Your task to perform on an android device: Go to eBay Image 0: 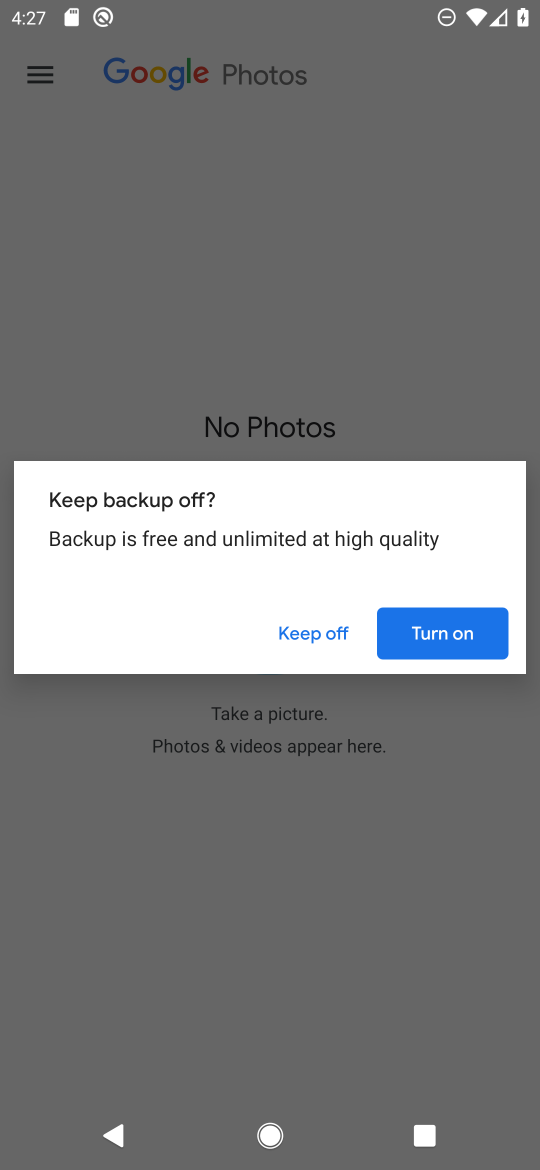
Step 0: click (277, 620)
Your task to perform on an android device: Go to eBay Image 1: 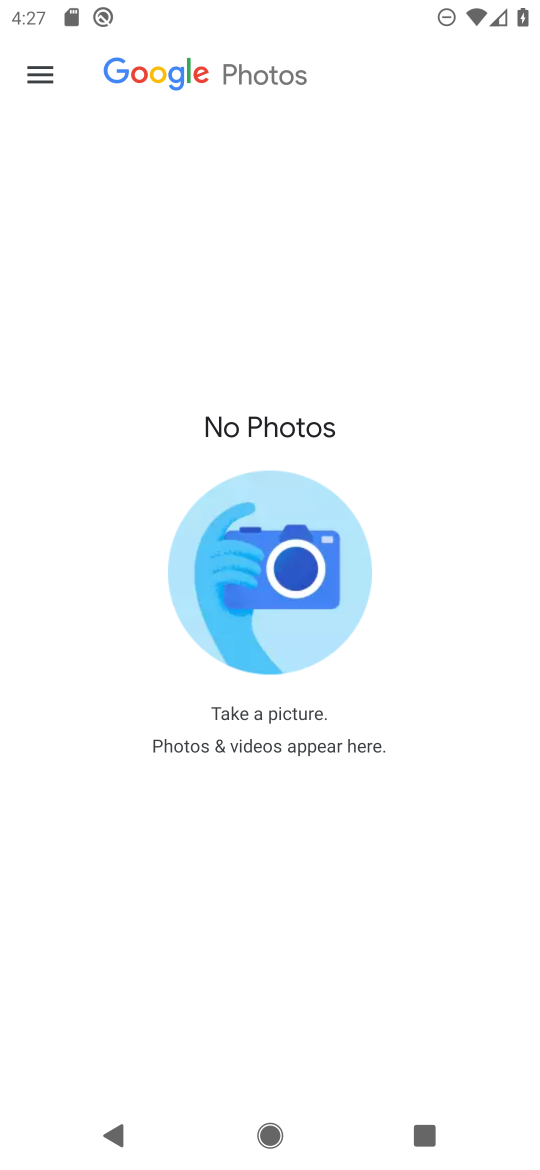
Step 1: press back button
Your task to perform on an android device: Go to eBay Image 2: 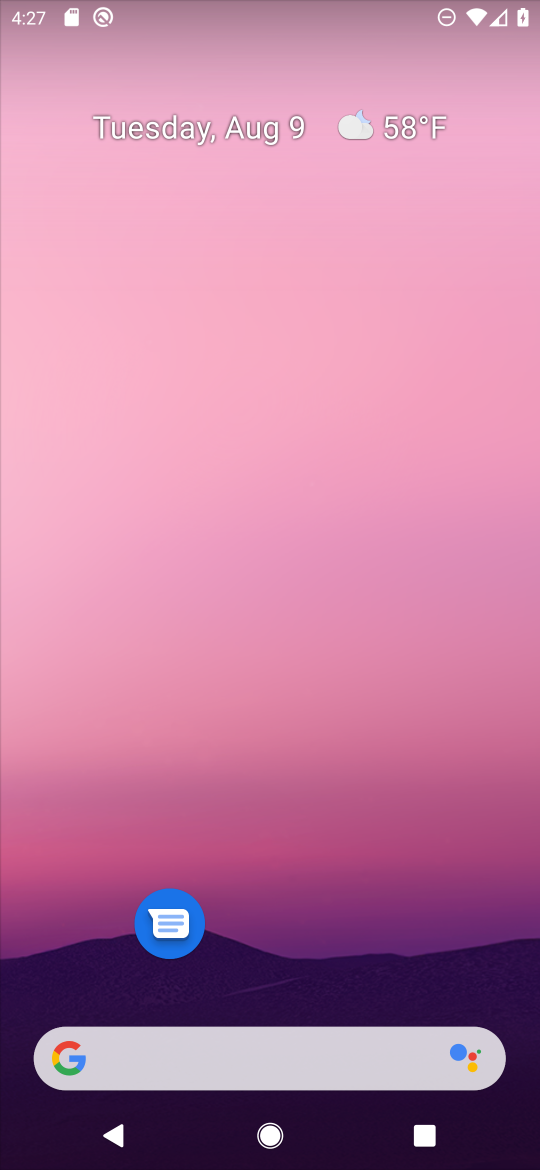
Step 2: drag from (269, 888) to (365, 120)
Your task to perform on an android device: Go to eBay Image 3: 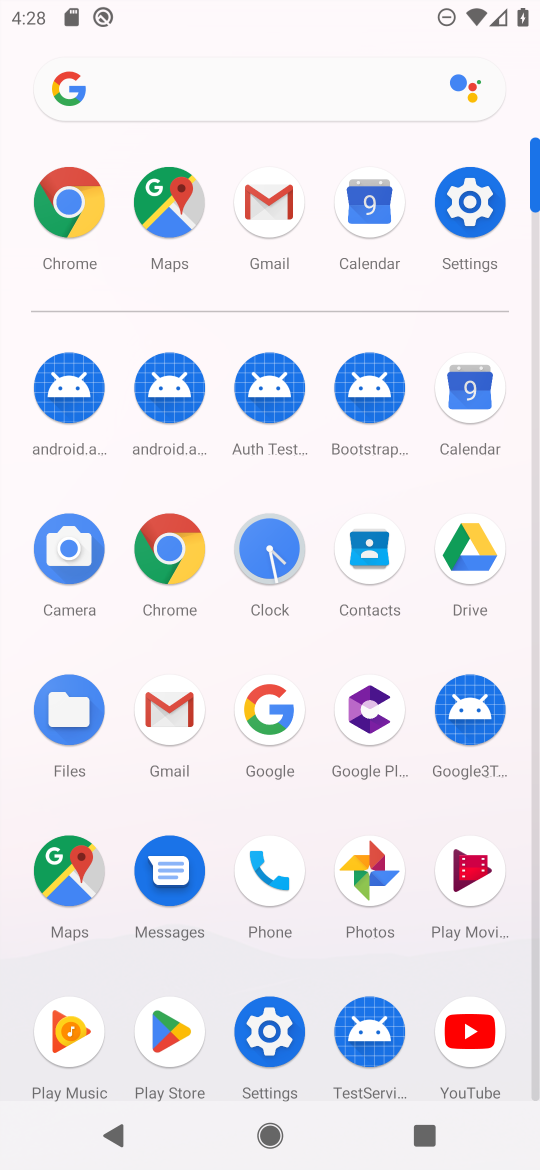
Step 3: click (82, 221)
Your task to perform on an android device: Go to eBay Image 4: 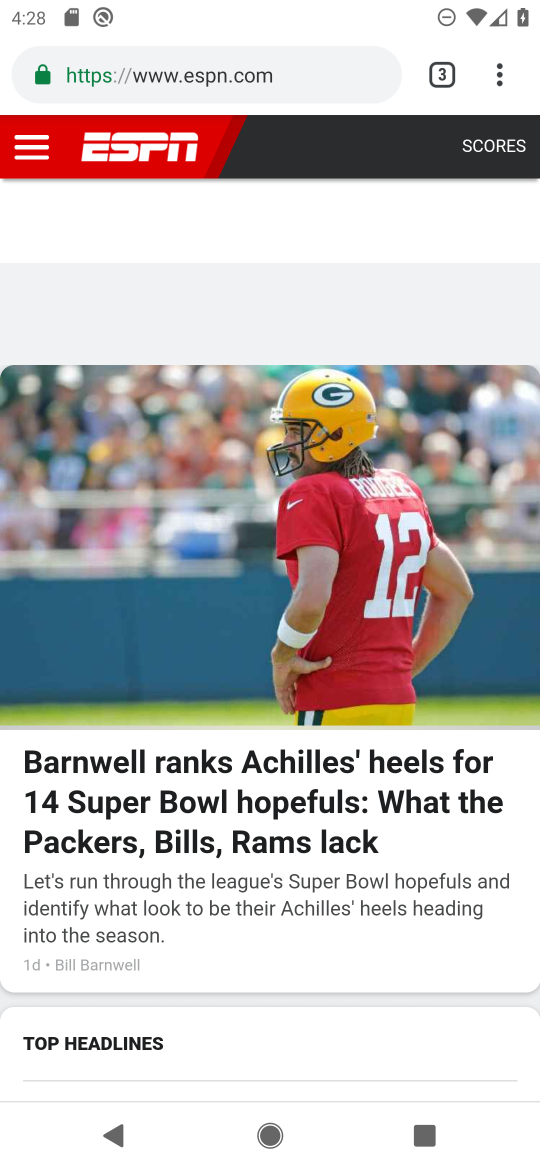
Step 4: click (442, 61)
Your task to perform on an android device: Go to eBay Image 5: 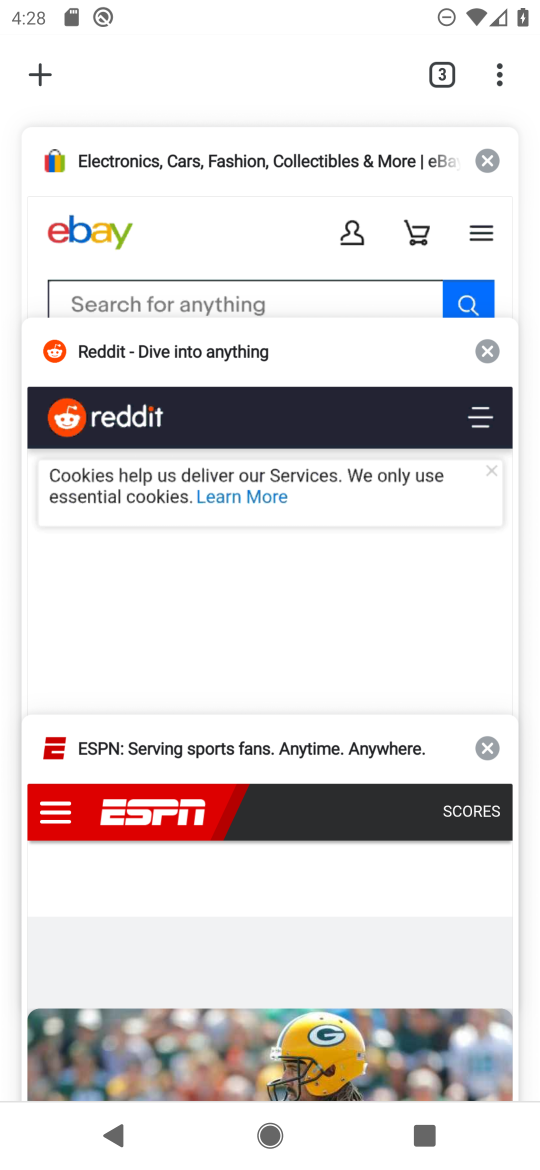
Step 5: click (156, 182)
Your task to perform on an android device: Go to eBay Image 6: 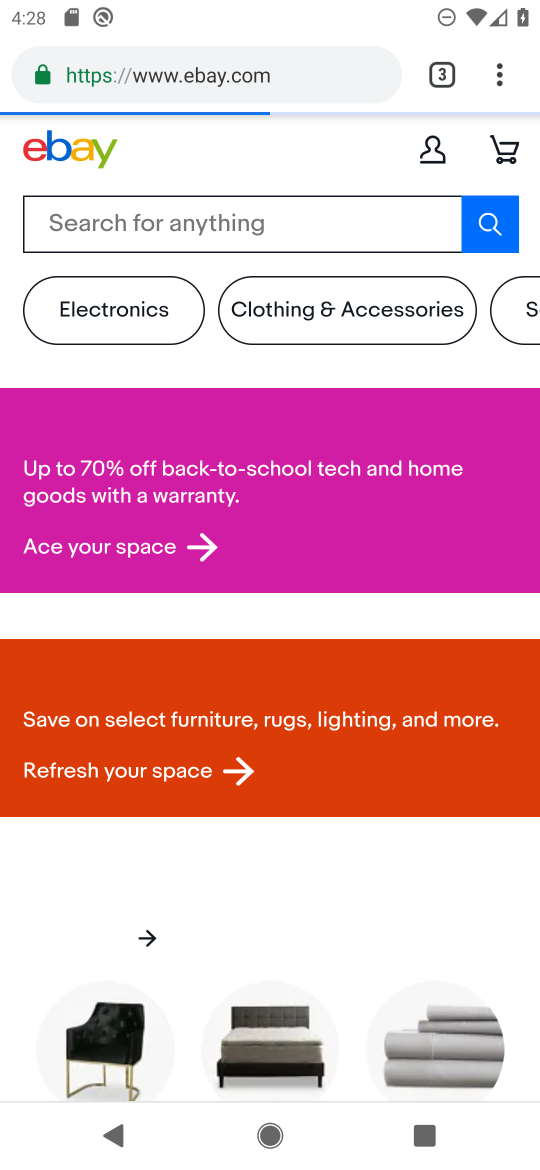
Step 6: task complete